Your task to perform on an android device: Go to wifi settings Image 0: 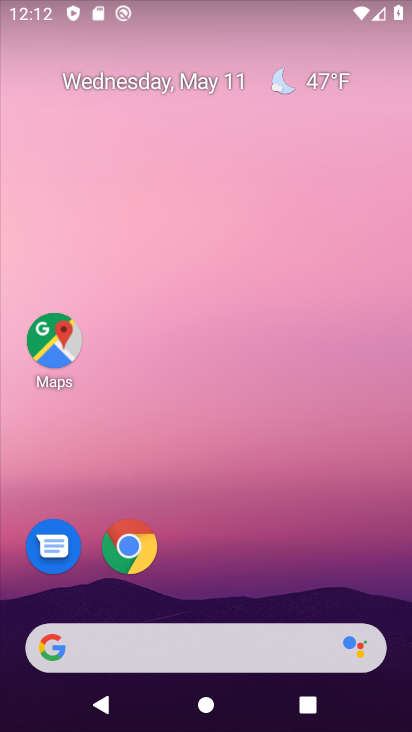
Step 0: drag from (161, 356) to (191, 146)
Your task to perform on an android device: Go to wifi settings Image 1: 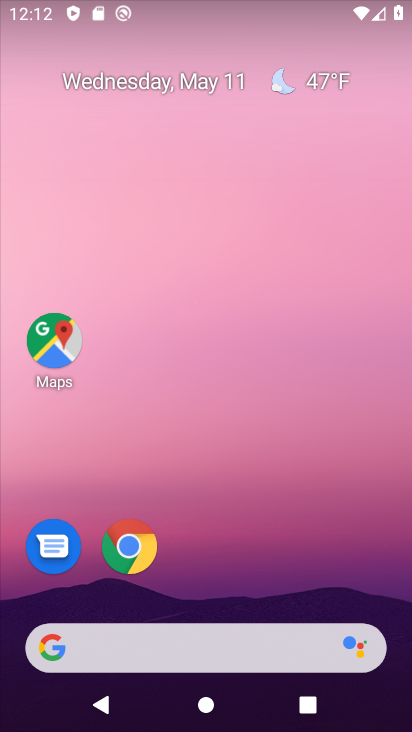
Step 1: drag from (194, 602) to (276, 151)
Your task to perform on an android device: Go to wifi settings Image 2: 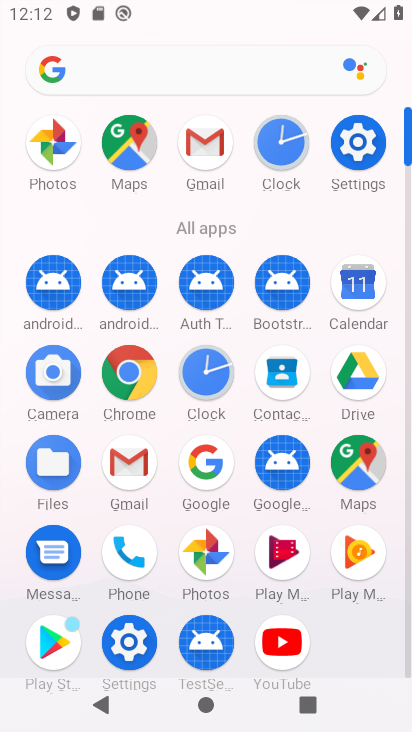
Step 2: click (351, 144)
Your task to perform on an android device: Go to wifi settings Image 3: 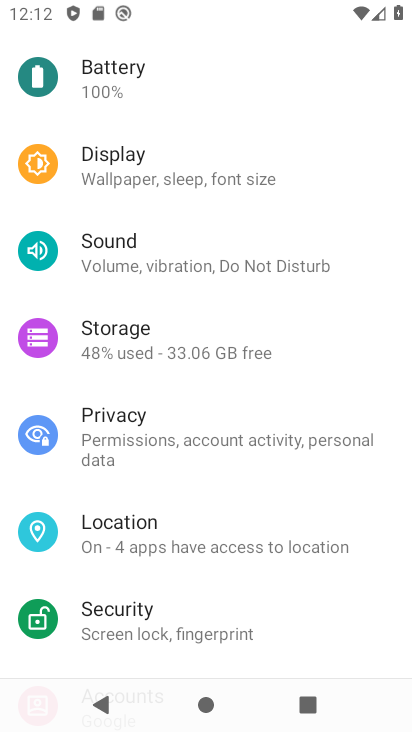
Step 3: drag from (216, 156) to (188, 709)
Your task to perform on an android device: Go to wifi settings Image 4: 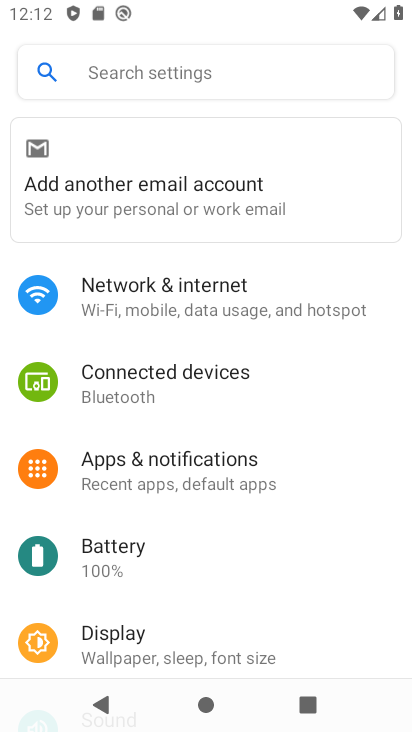
Step 4: click (139, 284)
Your task to perform on an android device: Go to wifi settings Image 5: 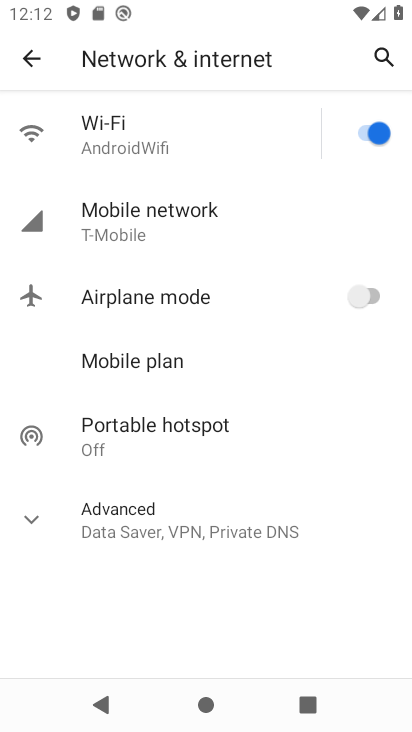
Step 5: click (235, 137)
Your task to perform on an android device: Go to wifi settings Image 6: 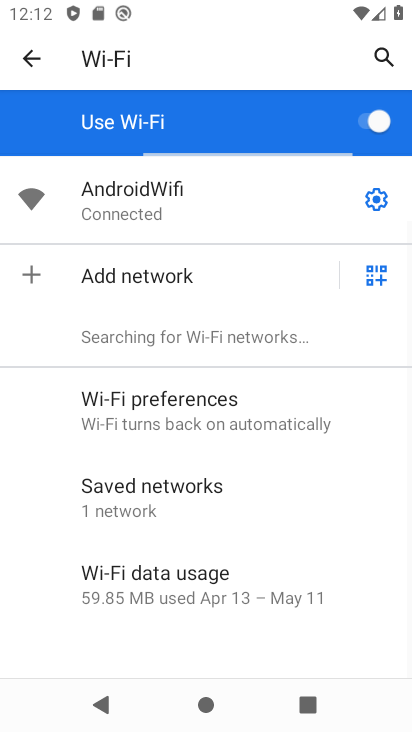
Step 6: task complete